Your task to perform on an android device: open wifi settings Image 0: 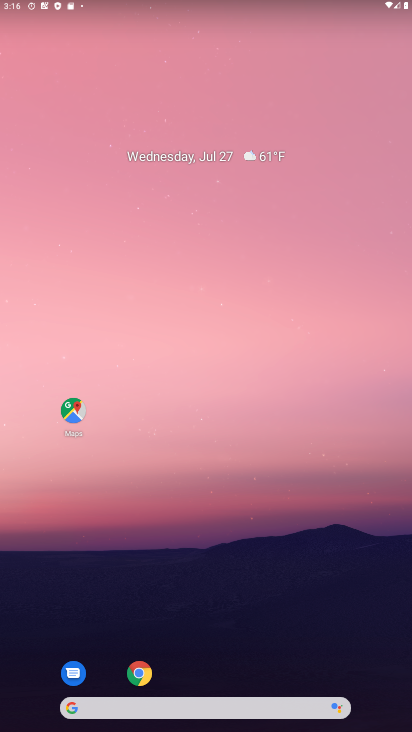
Step 0: drag from (40, 676) to (265, 52)
Your task to perform on an android device: open wifi settings Image 1: 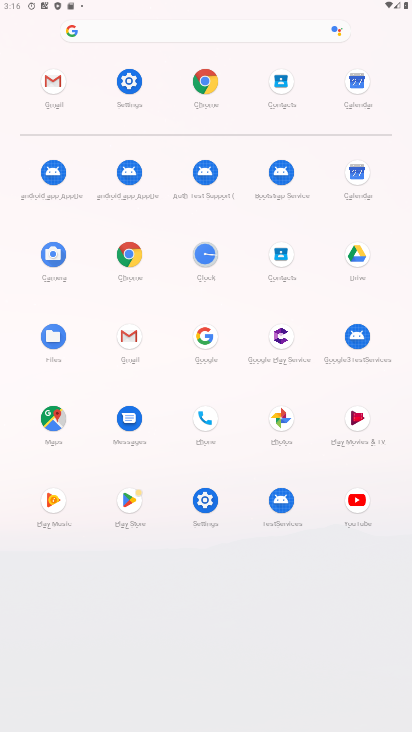
Step 1: click (205, 506)
Your task to perform on an android device: open wifi settings Image 2: 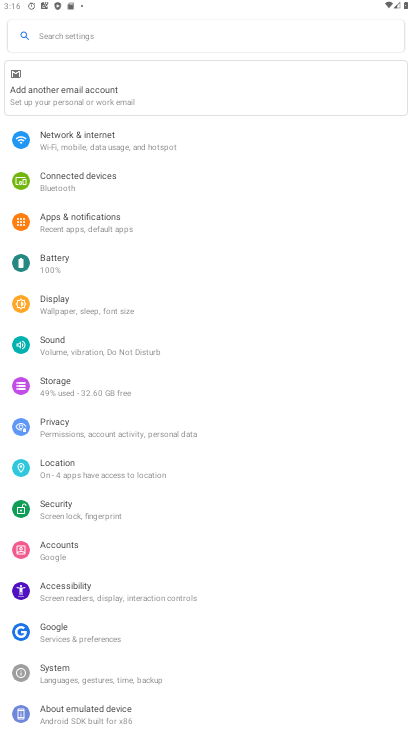
Step 2: click (82, 141)
Your task to perform on an android device: open wifi settings Image 3: 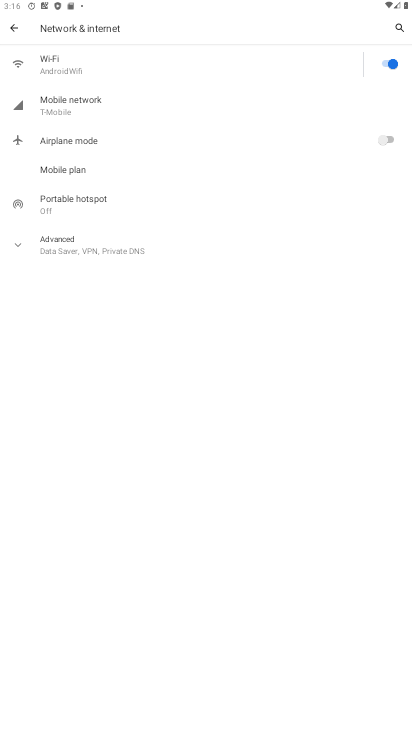
Step 3: task complete